Your task to perform on an android device: Do I have any events tomorrow? Image 0: 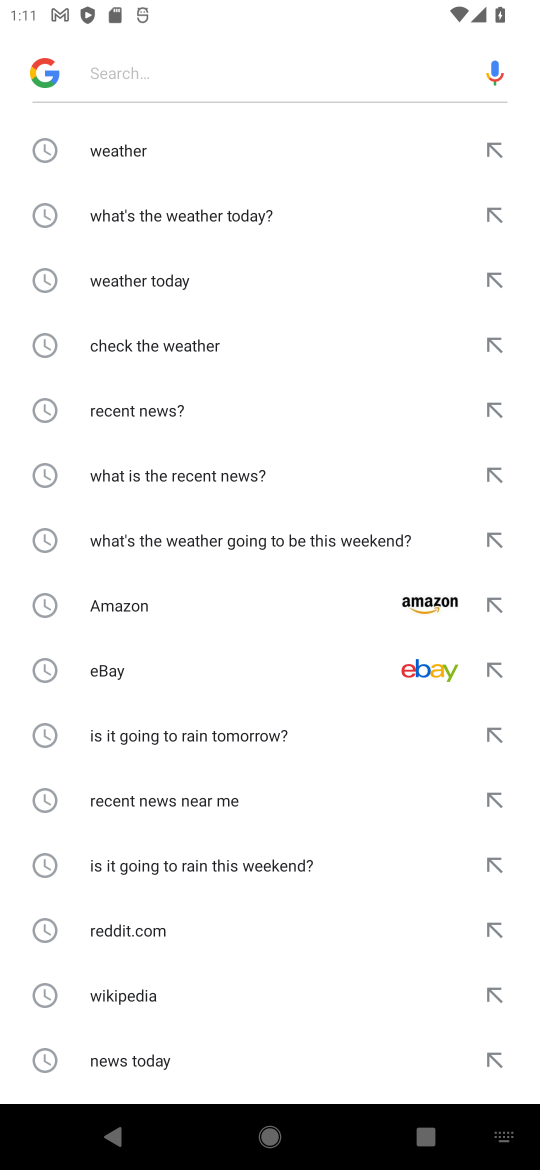
Step 0: press home button
Your task to perform on an android device: Do I have any events tomorrow? Image 1: 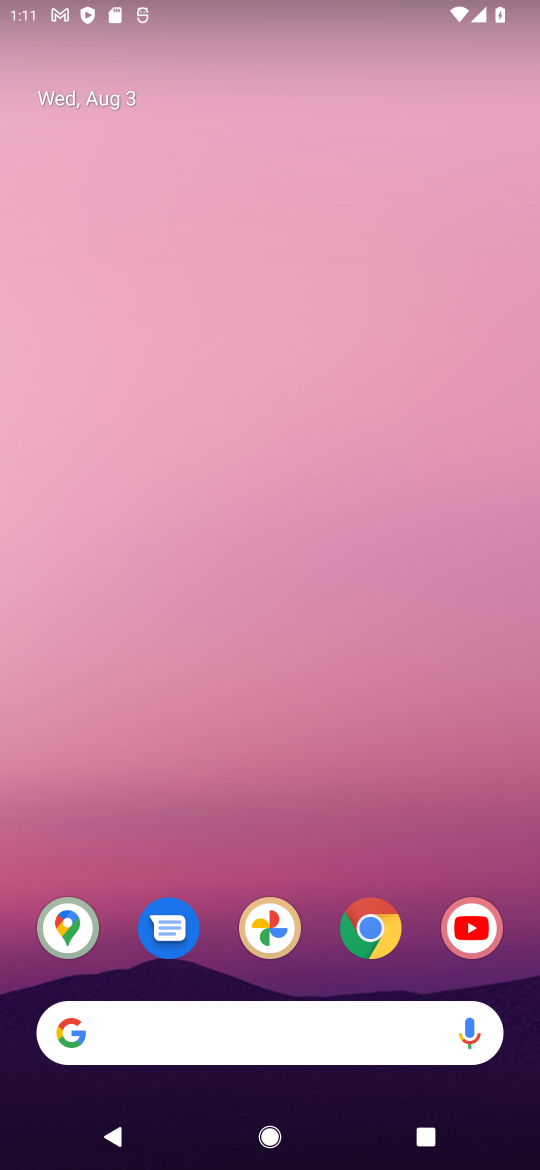
Step 1: drag from (412, 871) to (405, 506)
Your task to perform on an android device: Do I have any events tomorrow? Image 2: 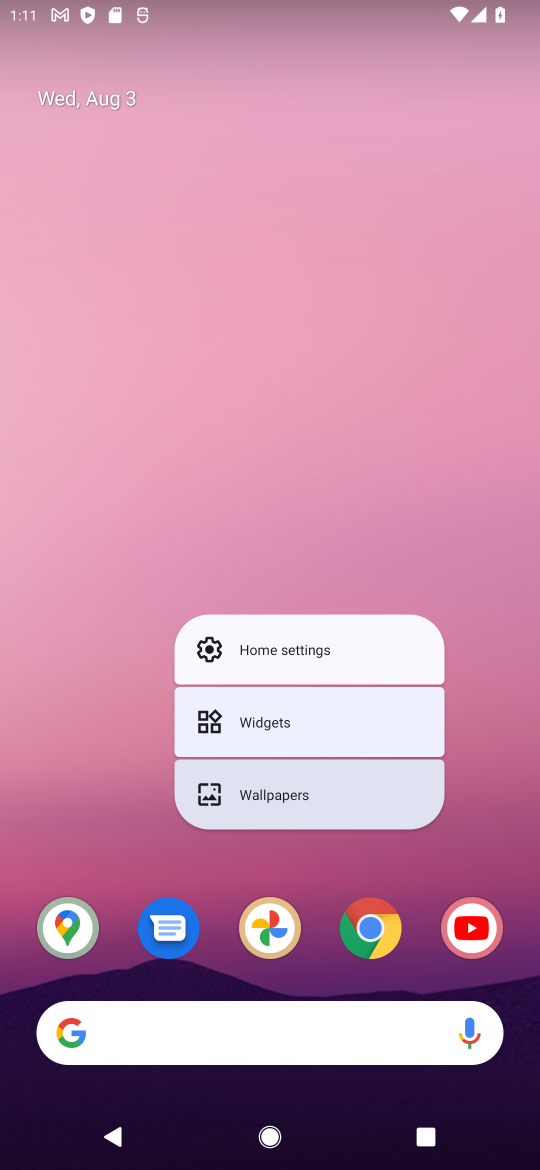
Step 2: click (405, 506)
Your task to perform on an android device: Do I have any events tomorrow? Image 3: 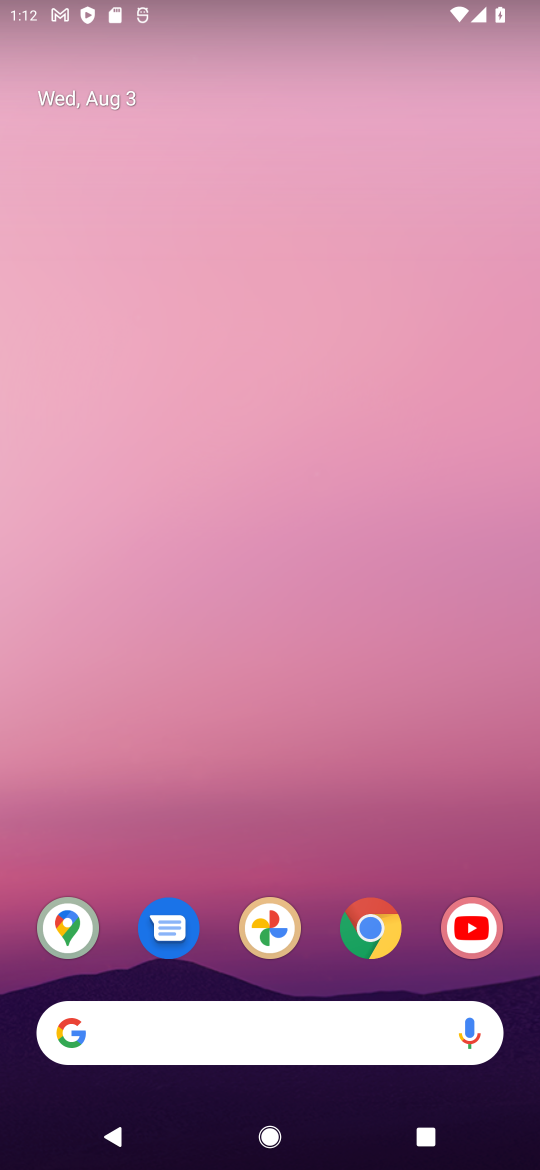
Step 3: drag from (408, 885) to (375, 426)
Your task to perform on an android device: Do I have any events tomorrow? Image 4: 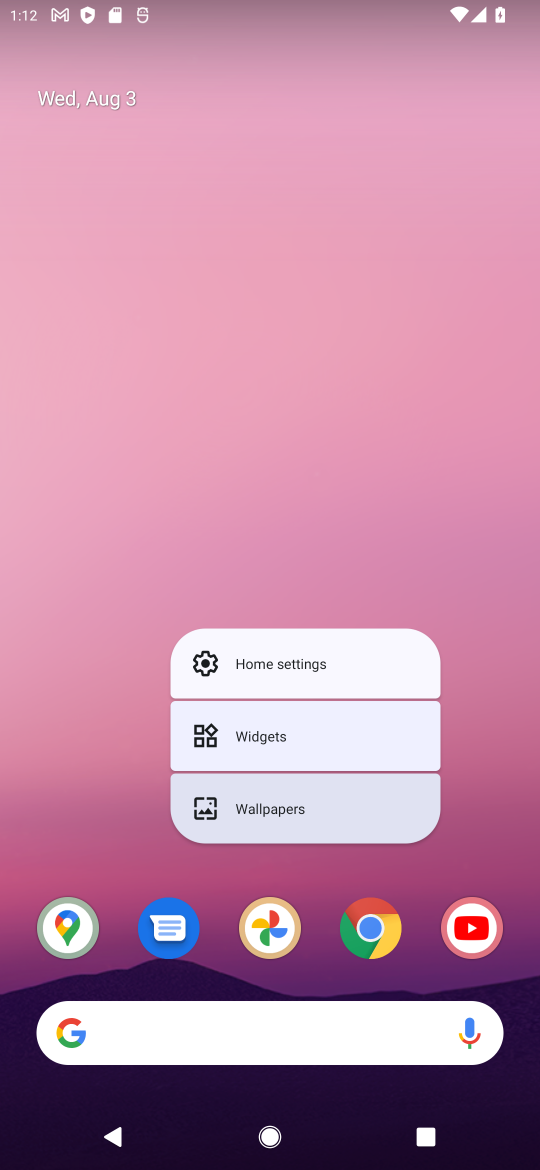
Step 4: click (375, 426)
Your task to perform on an android device: Do I have any events tomorrow? Image 5: 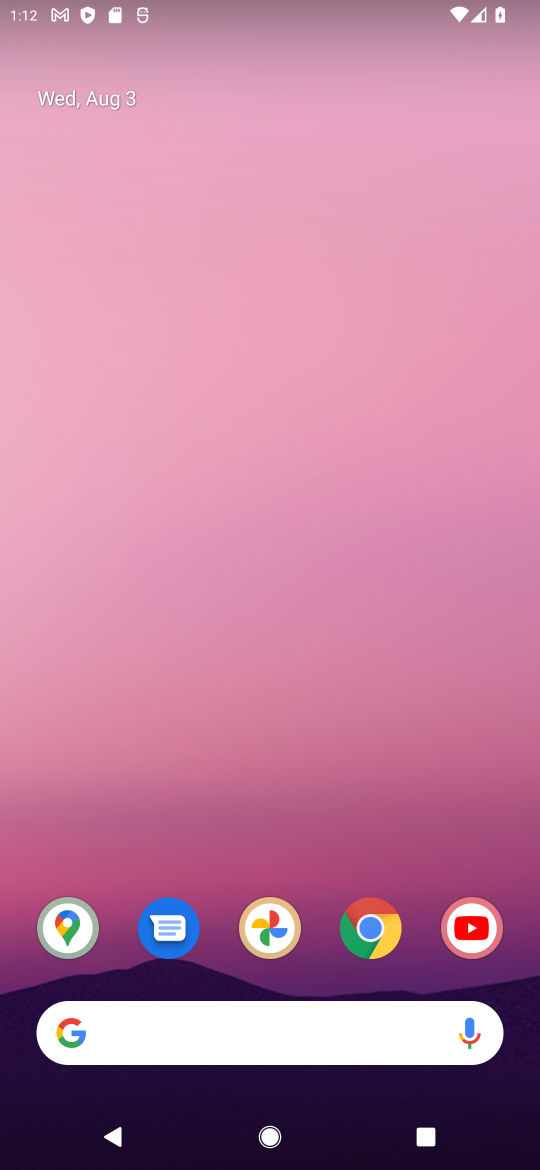
Step 5: drag from (118, 869) to (303, 272)
Your task to perform on an android device: Do I have any events tomorrow? Image 6: 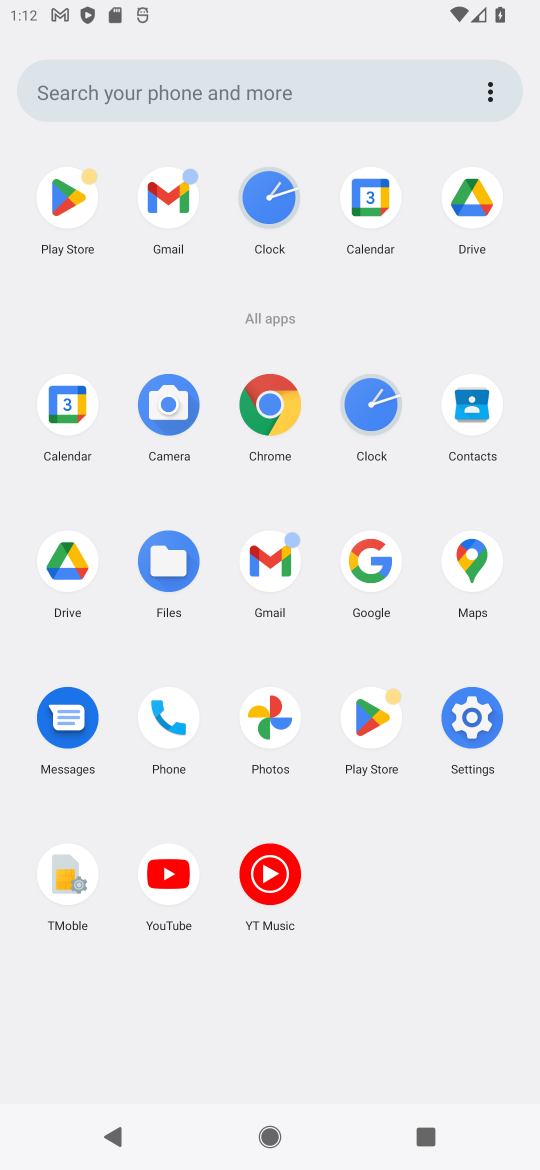
Step 6: click (50, 398)
Your task to perform on an android device: Do I have any events tomorrow? Image 7: 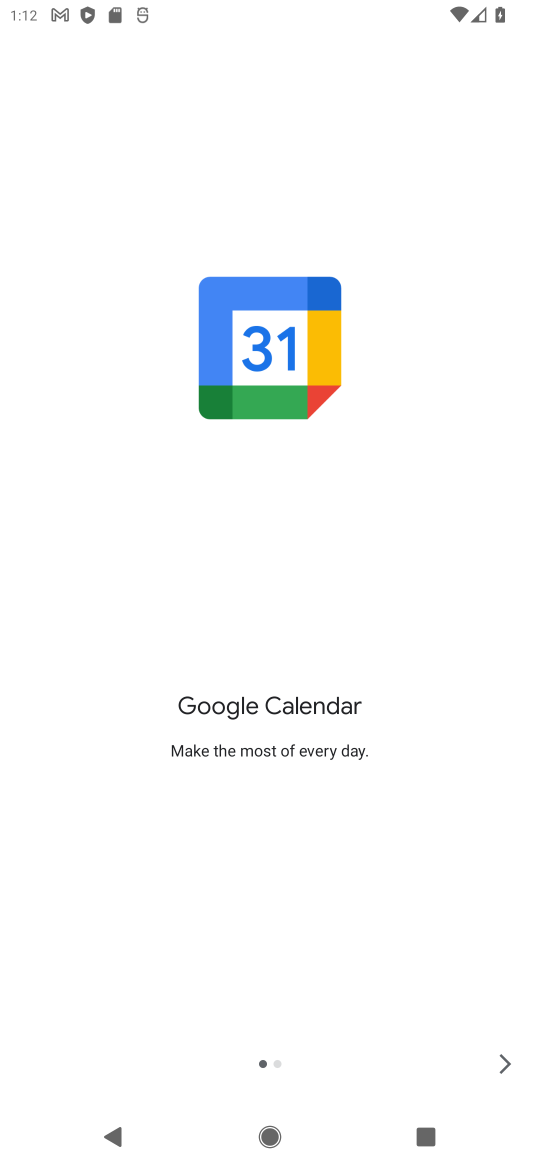
Step 7: click (508, 1060)
Your task to perform on an android device: Do I have any events tomorrow? Image 8: 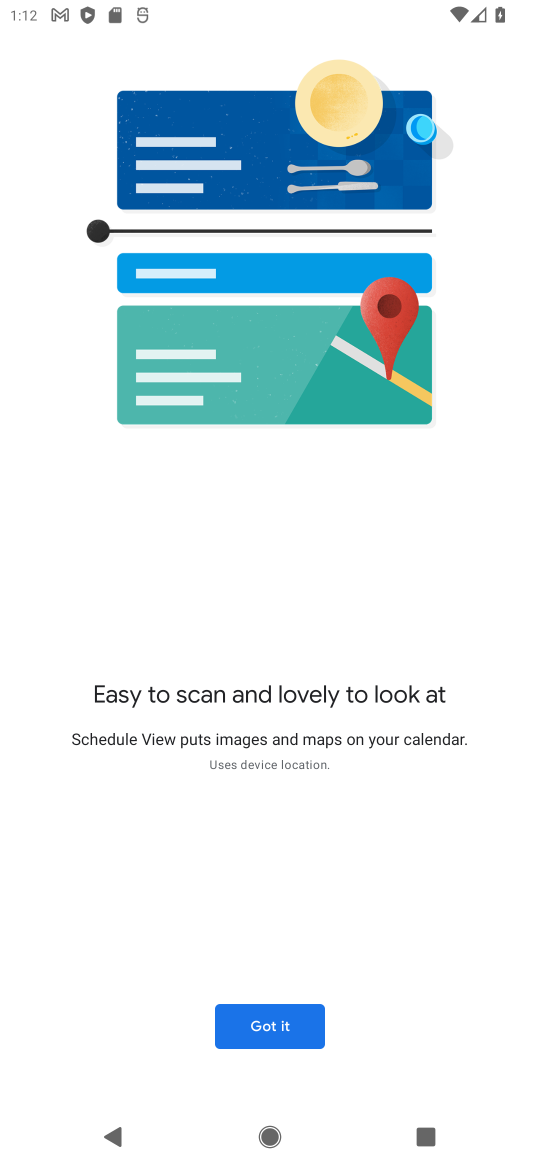
Step 8: click (250, 1028)
Your task to perform on an android device: Do I have any events tomorrow? Image 9: 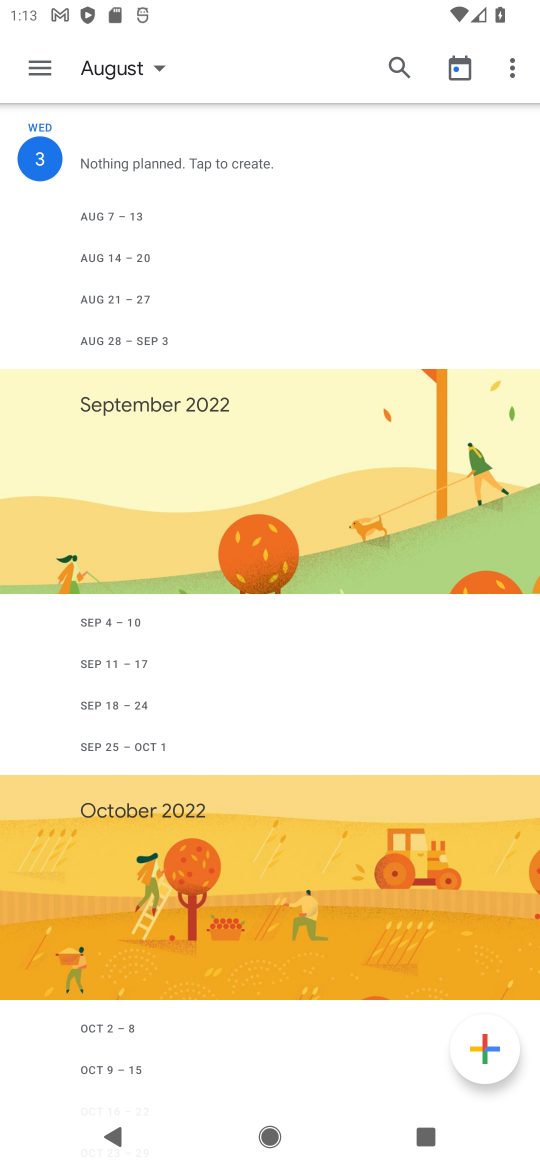
Step 9: click (28, 58)
Your task to perform on an android device: Do I have any events tomorrow? Image 10: 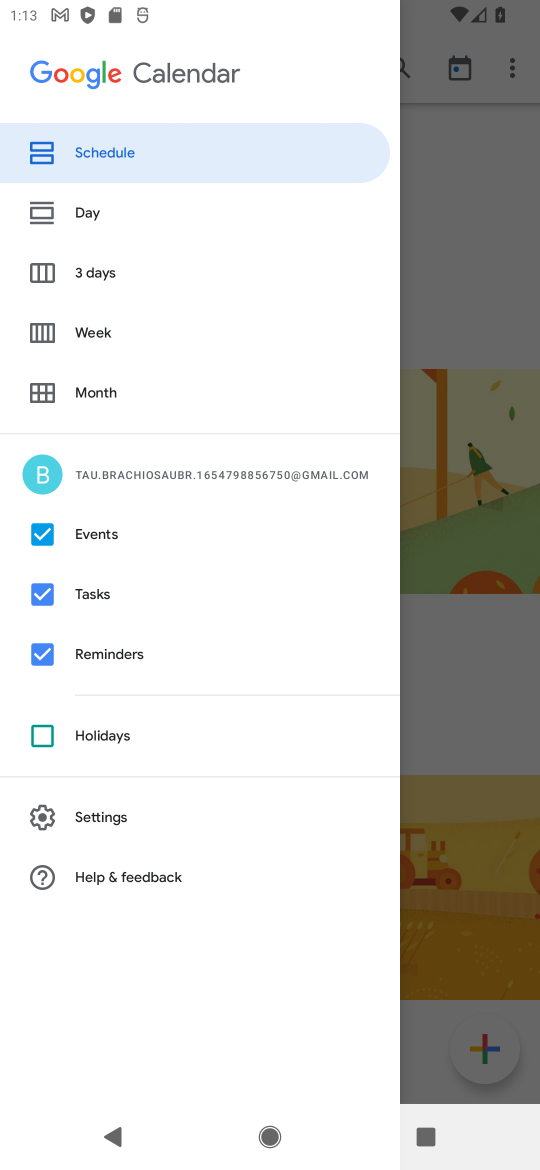
Step 10: click (148, 212)
Your task to perform on an android device: Do I have any events tomorrow? Image 11: 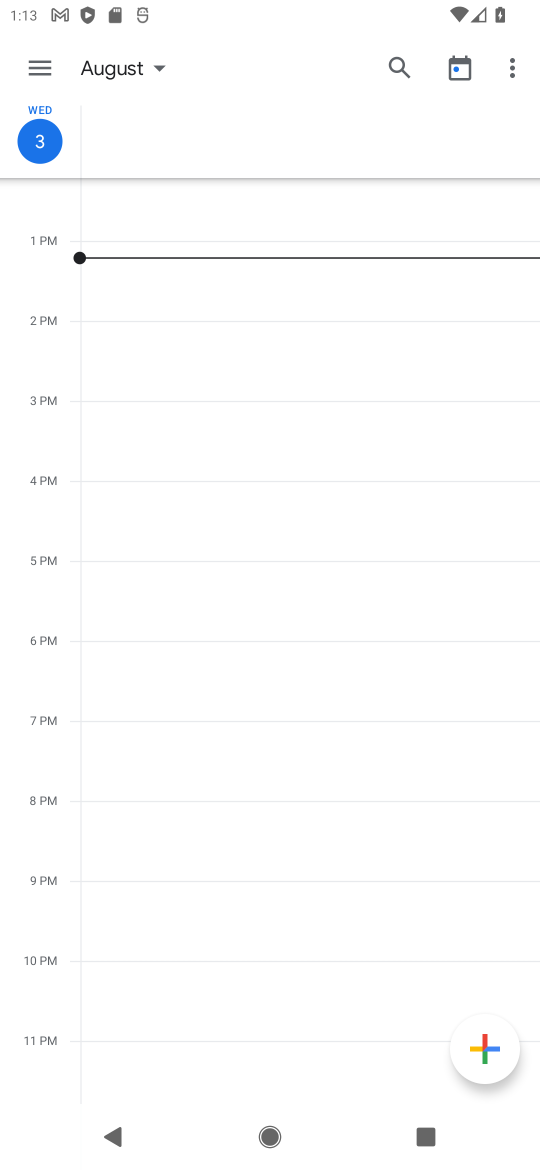
Step 11: click (130, 72)
Your task to perform on an android device: Do I have any events tomorrow? Image 12: 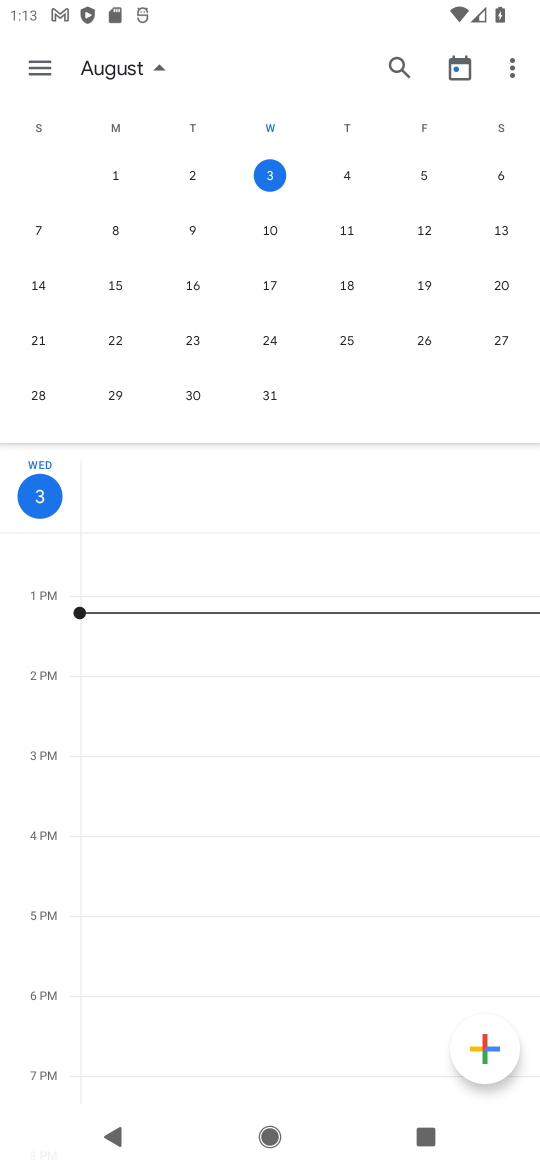
Step 12: click (350, 173)
Your task to perform on an android device: Do I have any events tomorrow? Image 13: 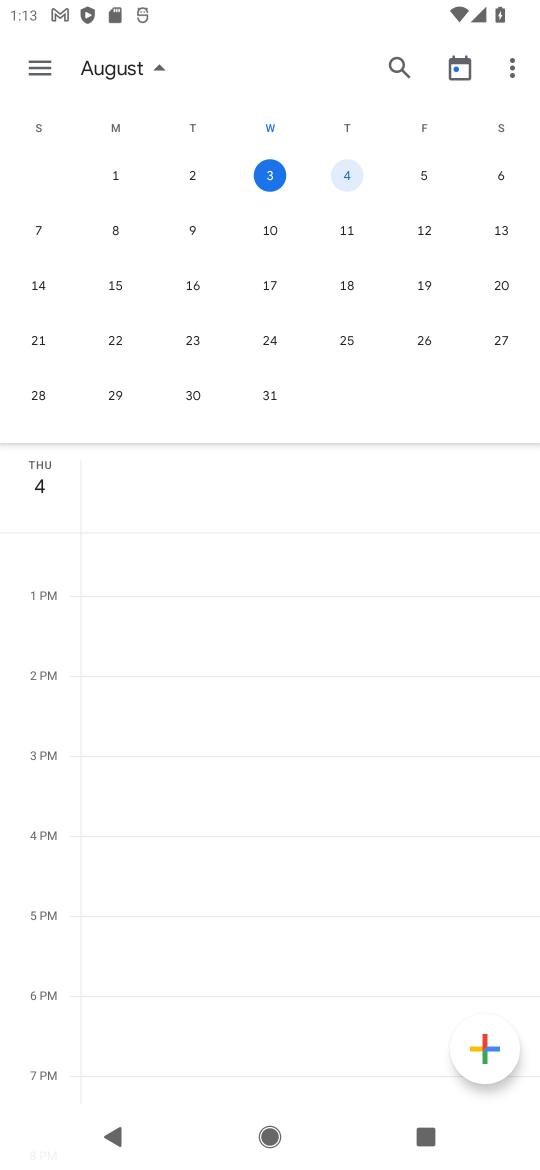
Step 13: task complete